Your task to perform on an android device: turn off improve location accuracy Image 0: 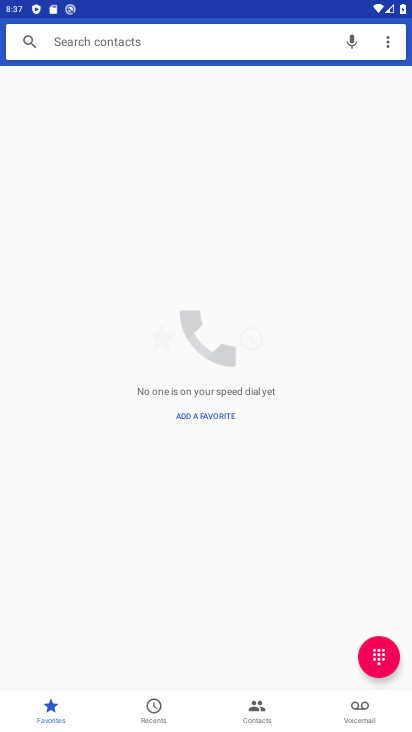
Step 0: press home button
Your task to perform on an android device: turn off improve location accuracy Image 1: 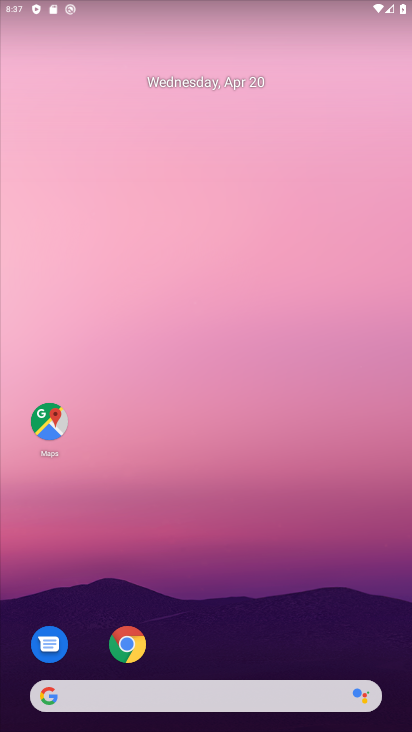
Step 1: drag from (198, 679) to (258, 255)
Your task to perform on an android device: turn off improve location accuracy Image 2: 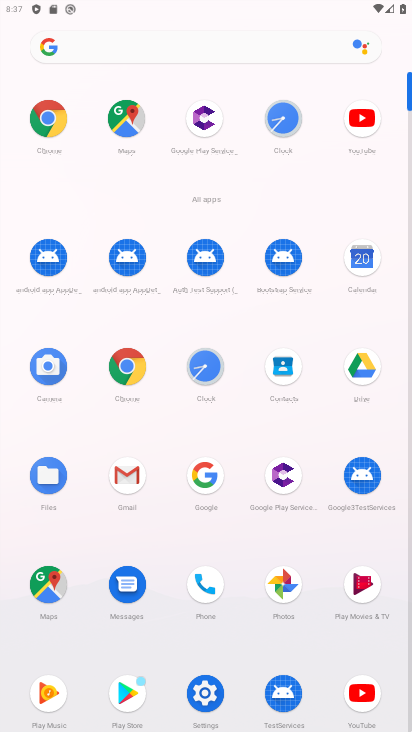
Step 2: click (211, 689)
Your task to perform on an android device: turn off improve location accuracy Image 3: 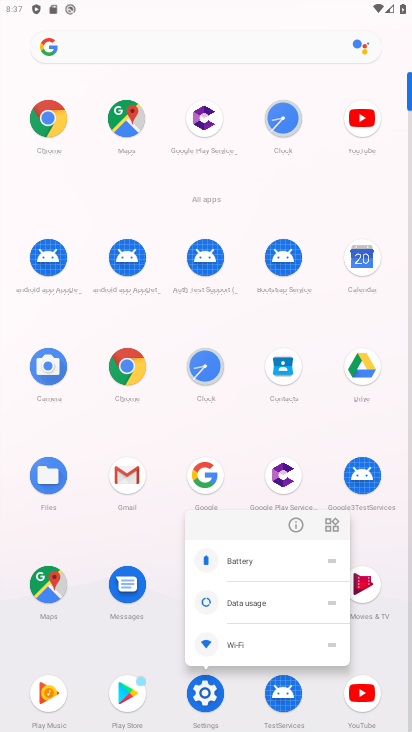
Step 3: click (210, 689)
Your task to perform on an android device: turn off improve location accuracy Image 4: 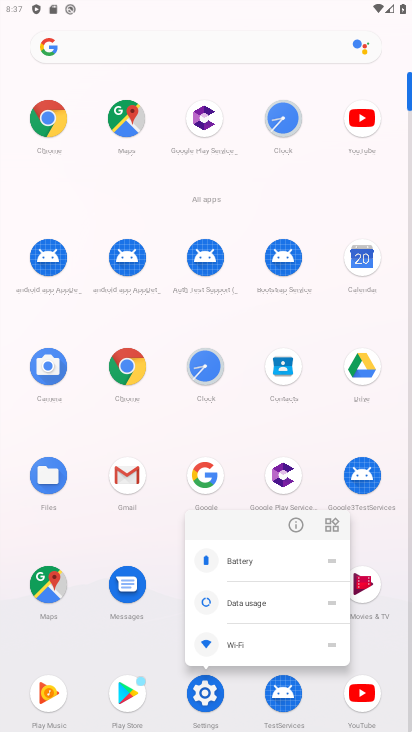
Step 4: click (201, 699)
Your task to perform on an android device: turn off improve location accuracy Image 5: 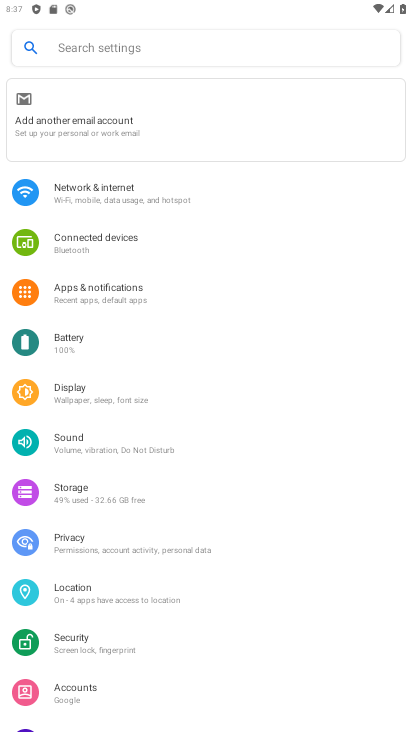
Step 5: click (73, 595)
Your task to perform on an android device: turn off improve location accuracy Image 6: 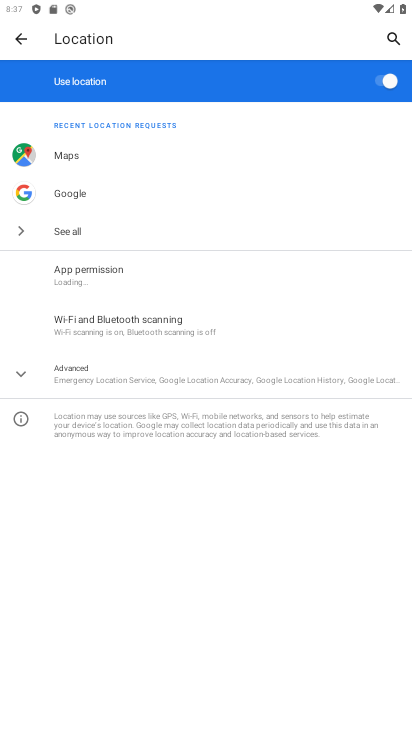
Step 6: click (110, 375)
Your task to perform on an android device: turn off improve location accuracy Image 7: 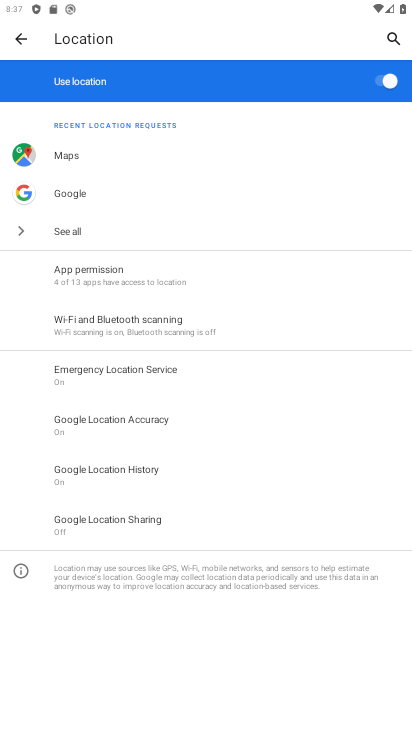
Step 7: click (127, 416)
Your task to perform on an android device: turn off improve location accuracy Image 8: 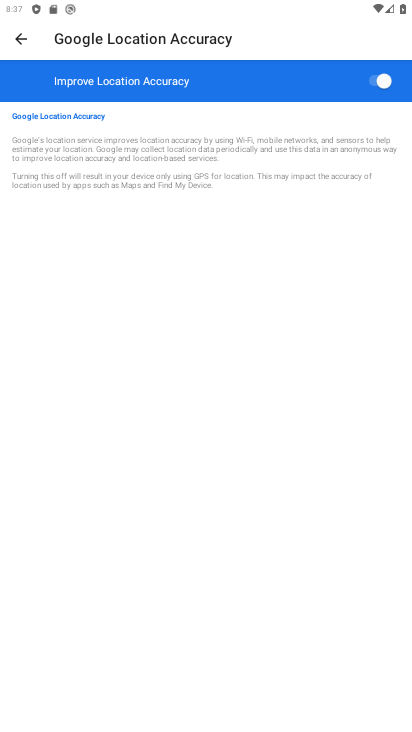
Step 8: click (377, 81)
Your task to perform on an android device: turn off improve location accuracy Image 9: 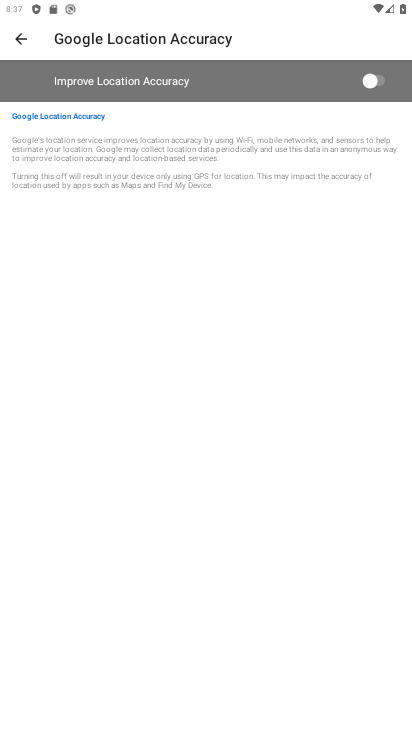
Step 9: task complete